Your task to perform on an android device: Open the calendar and show me this week's events? Image 0: 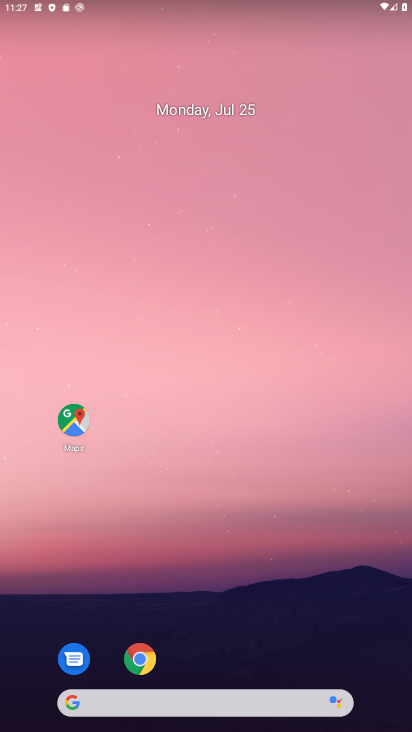
Step 0: drag from (18, 684) to (217, 181)
Your task to perform on an android device: Open the calendar and show me this week's events? Image 1: 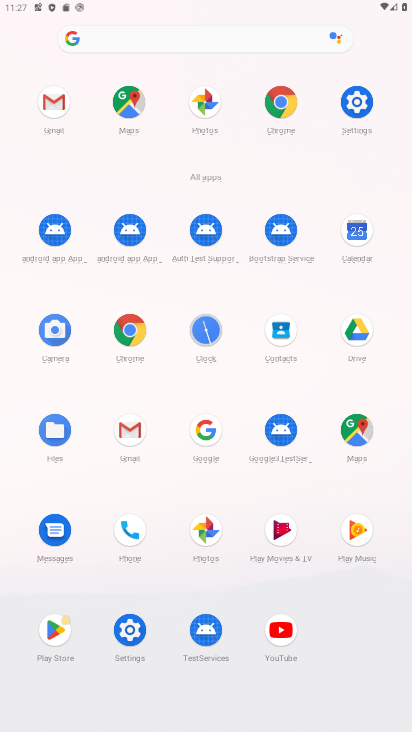
Step 1: click (132, 633)
Your task to perform on an android device: Open the calendar and show me this week's events? Image 2: 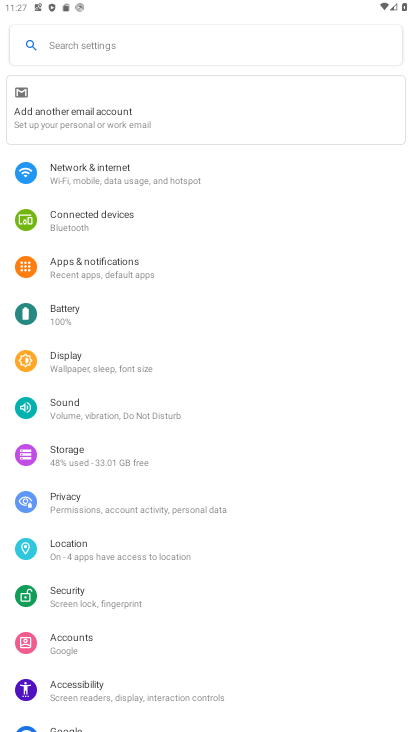
Step 2: press home button
Your task to perform on an android device: Open the calendar and show me this week's events? Image 3: 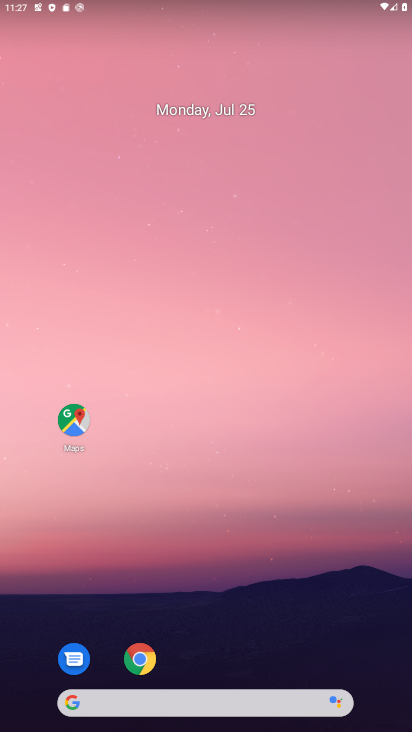
Step 3: drag from (34, 667) to (289, 36)
Your task to perform on an android device: Open the calendar and show me this week's events? Image 4: 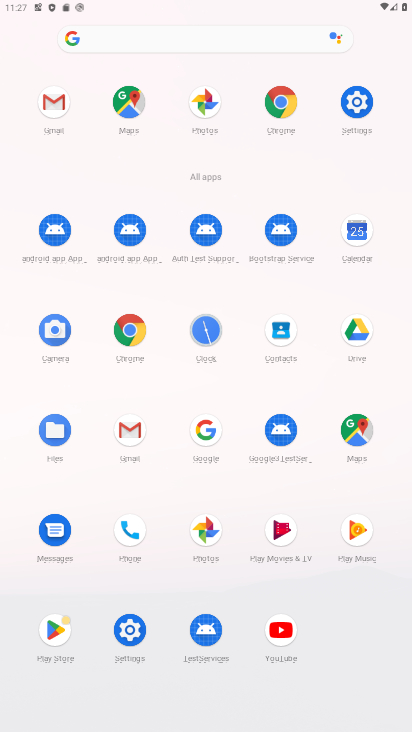
Step 4: click (352, 221)
Your task to perform on an android device: Open the calendar and show me this week's events? Image 5: 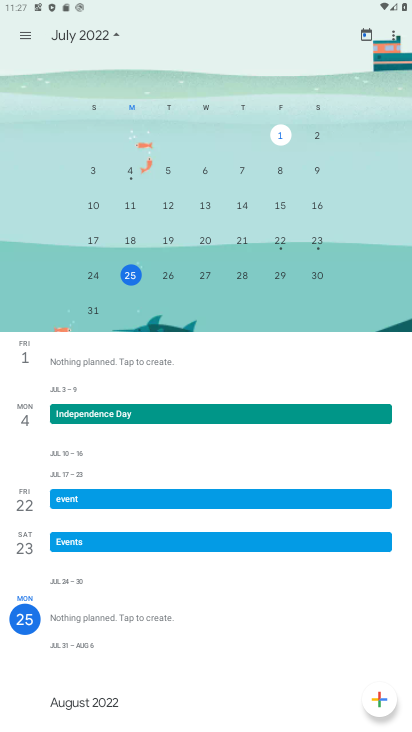
Step 5: task complete